Your task to perform on an android device: Go to eBay Image 0: 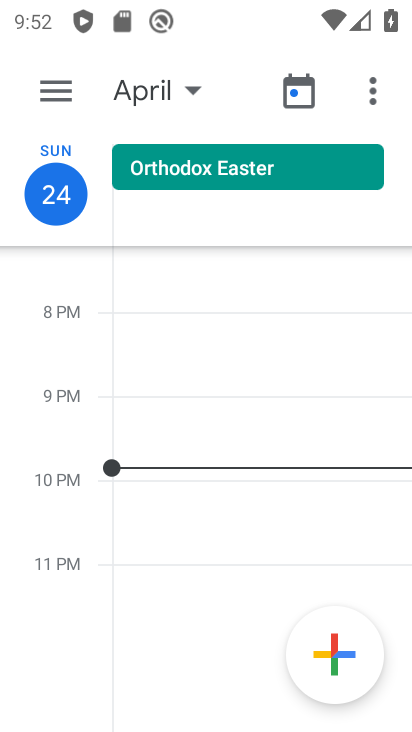
Step 0: press home button
Your task to perform on an android device: Go to eBay Image 1: 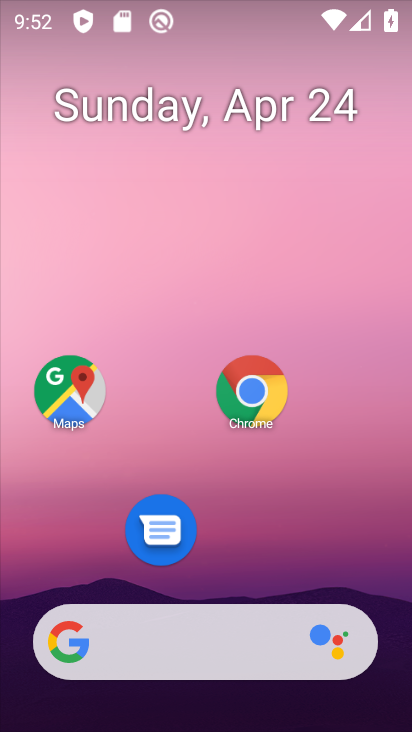
Step 1: click (245, 395)
Your task to perform on an android device: Go to eBay Image 2: 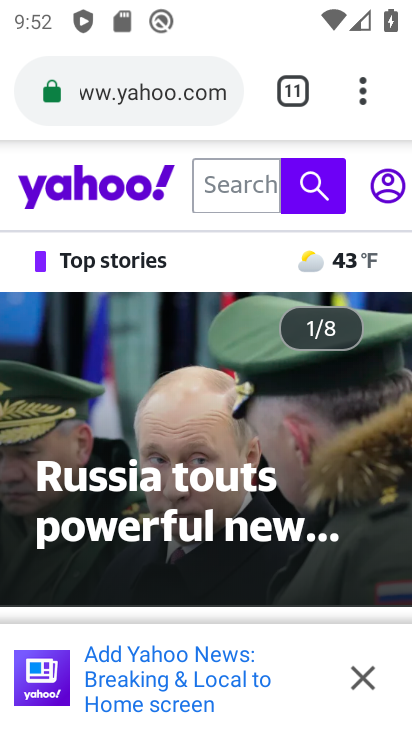
Step 2: click (282, 90)
Your task to perform on an android device: Go to eBay Image 3: 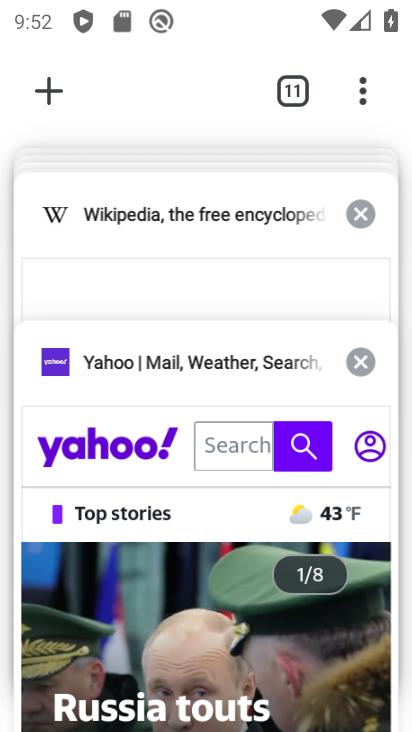
Step 3: click (48, 92)
Your task to perform on an android device: Go to eBay Image 4: 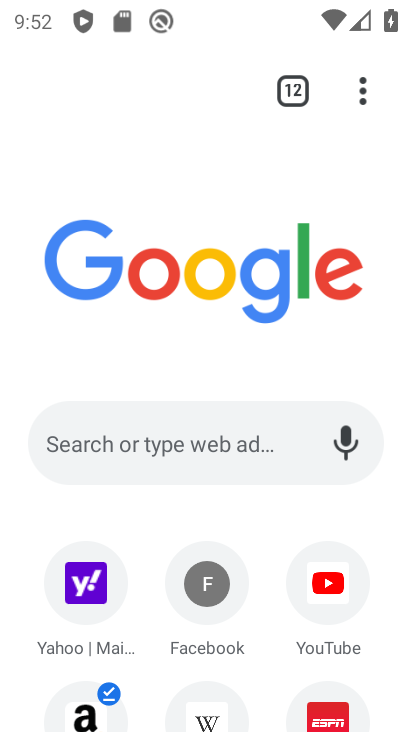
Step 4: click (198, 456)
Your task to perform on an android device: Go to eBay Image 5: 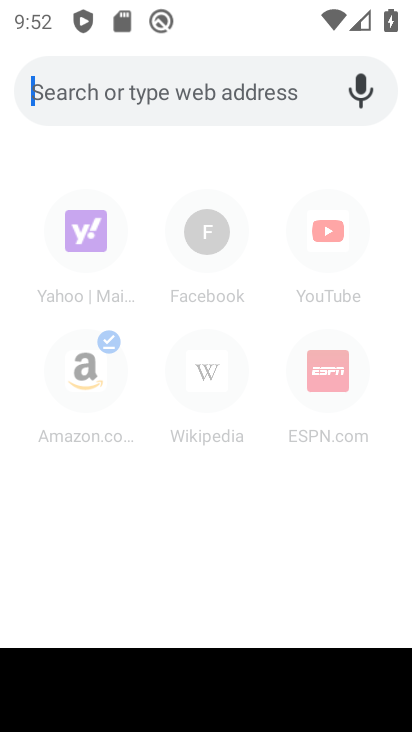
Step 5: type "ebay"
Your task to perform on an android device: Go to eBay Image 6: 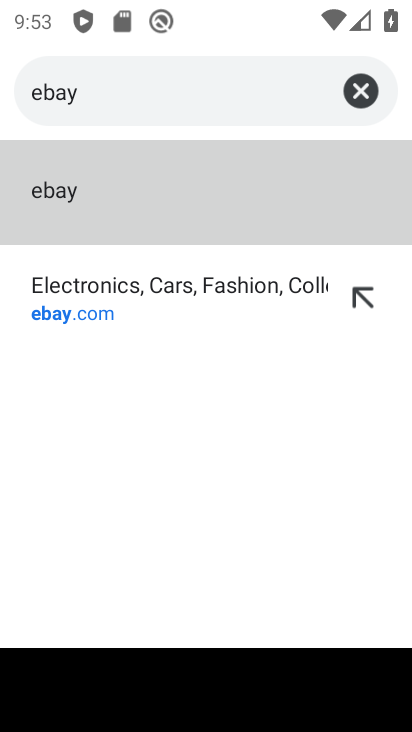
Step 6: click (123, 302)
Your task to perform on an android device: Go to eBay Image 7: 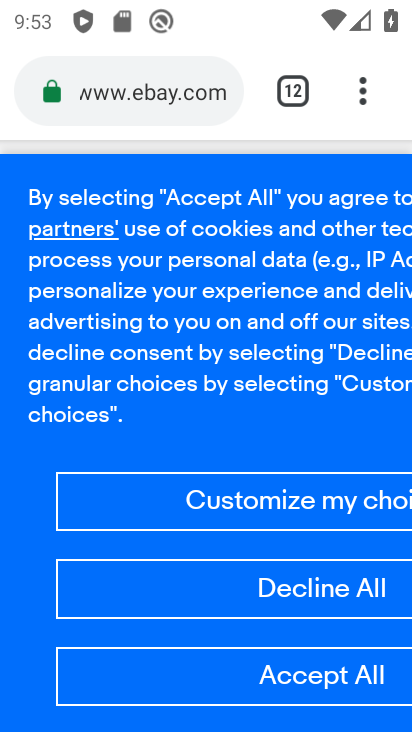
Step 7: task complete